Your task to perform on an android device: turn off notifications in google photos Image 0: 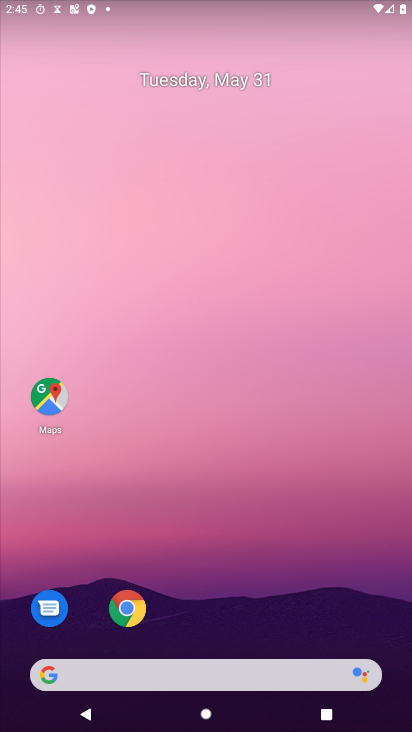
Step 0: drag from (205, 623) to (202, 485)
Your task to perform on an android device: turn off notifications in google photos Image 1: 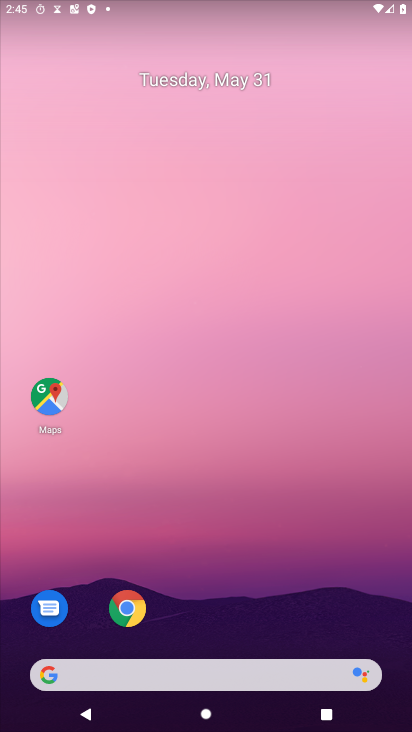
Step 1: drag from (213, 609) to (278, 21)
Your task to perform on an android device: turn off notifications in google photos Image 2: 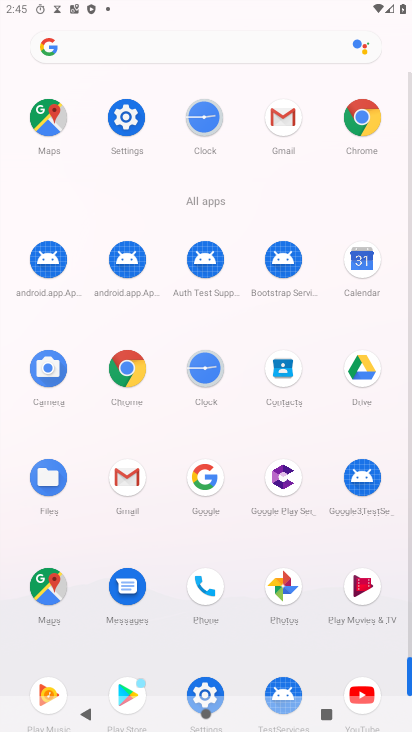
Step 2: drag from (220, 625) to (264, 249)
Your task to perform on an android device: turn off notifications in google photos Image 3: 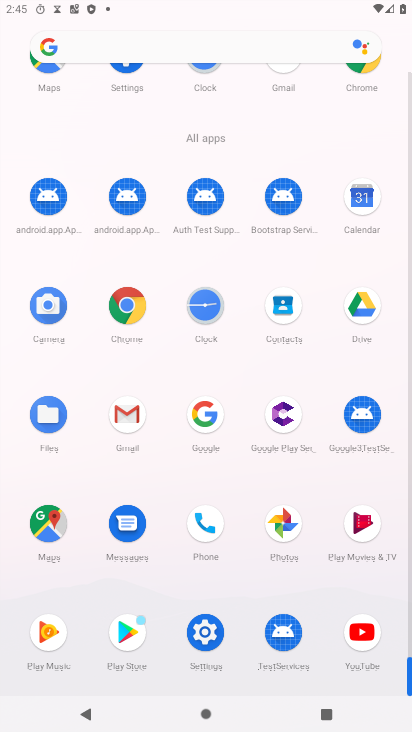
Step 3: click (281, 522)
Your task to perform on an android device: turn off notifications in google photos Image 4: 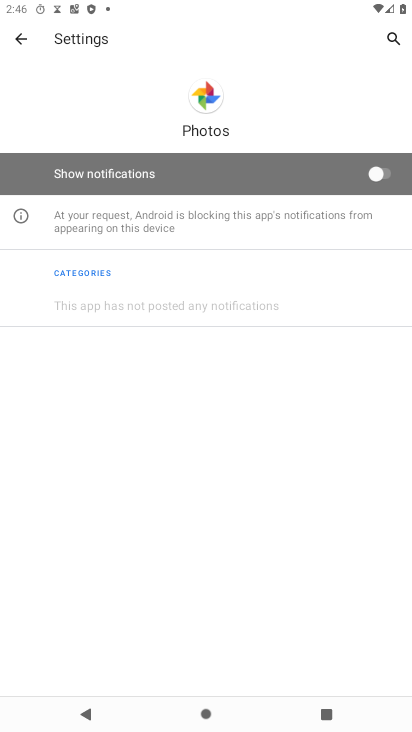
Step 4: task complete